Your task to perform on an android device: Open Chrome and go to the settings page Image 0: 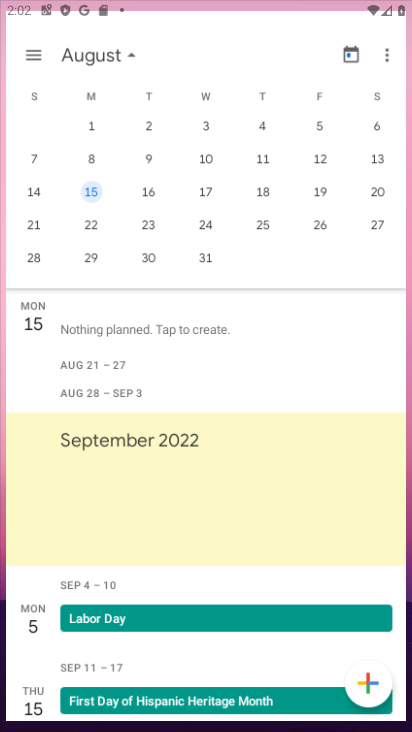
Step 0: drag from (228, 618) to (410, 191)
Your task to perform on an android device: Open Chrome and go to the settings page Image 1: 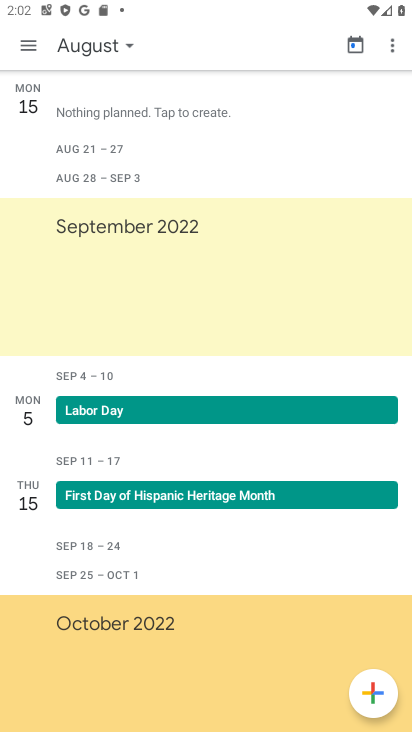
Step 1: press home button
Your task to perform on an android device: Open Chrome and go to the settings page Image 2: 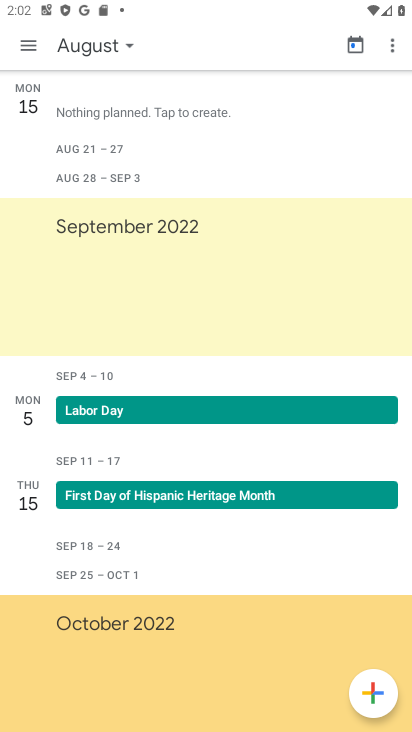
Step 2: drag from (410, 191) to (409, 347)
Your task to perform on an android device: Open Chrome and go to the settings page Image 3: 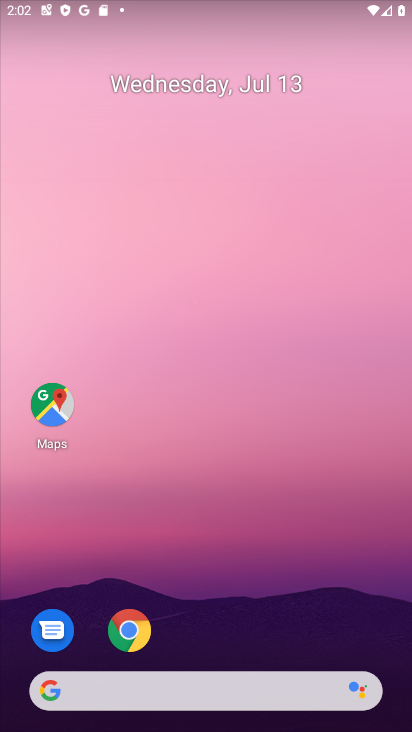
Step 3: click (128, 633)
Your task to perform on an android device: Open Chrome and go to the settings page Image 4: 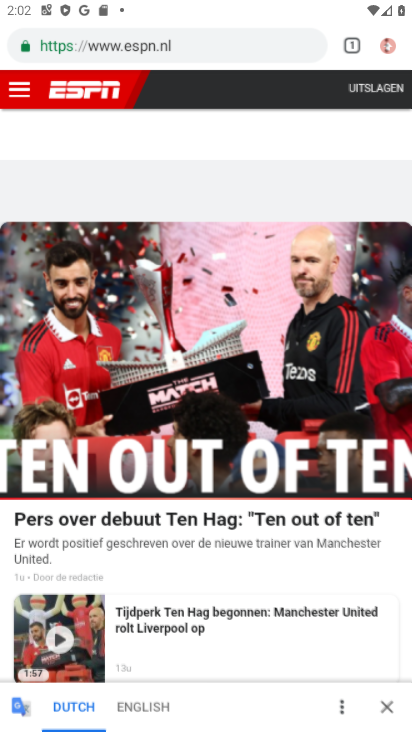
Step 4: click (382, 46)
Your task to perform on an android device: Open Chrome and go to the settings page Image 5: 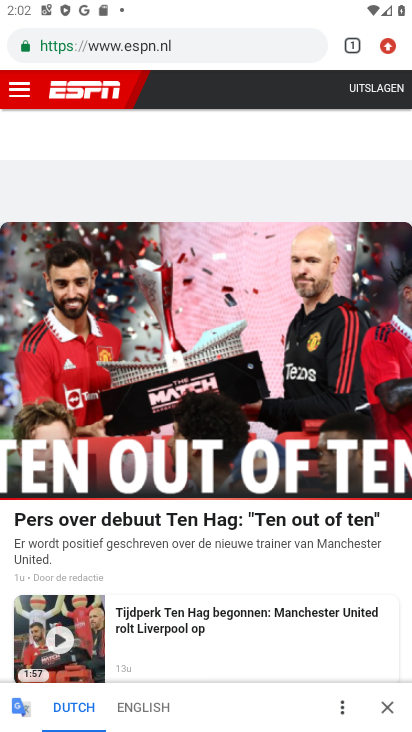
Step 5: click (382, 46)
Your task to perform on an android device: Open Chrome and go to the settings page Image 6: 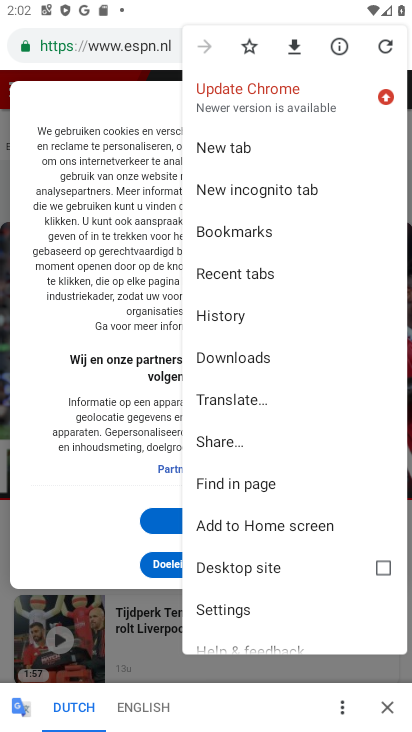
Step 6: click (222, 617)
Your task to perform on an android device: Open Chrome and go to the settings page Image 7: 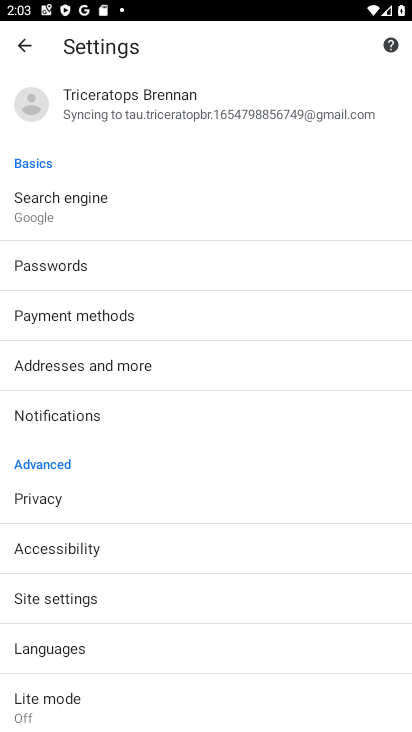
Step 7: task complete